Your task to perform on an android device: Go to network settings Image 0: 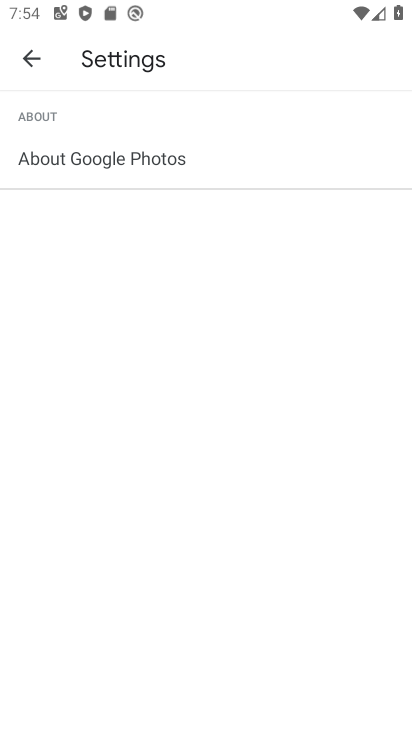
Step 0: press home button
Your task to perform on an android device: Go to network settings Image 1: 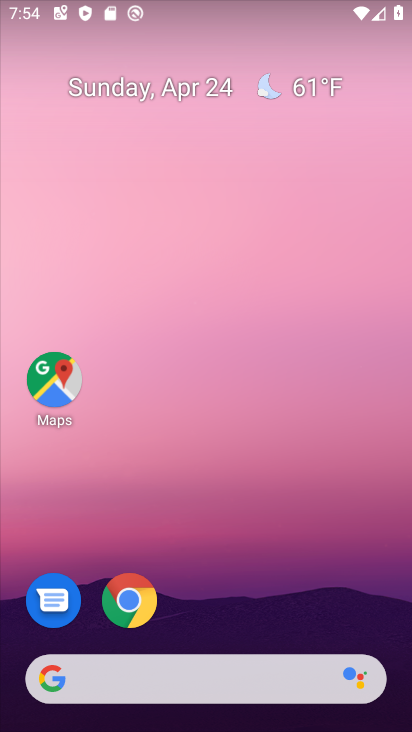
Step 1: drag from (214, 723) to (217, 81)
Your task to perform on an android device: Go to network settings Image 2: 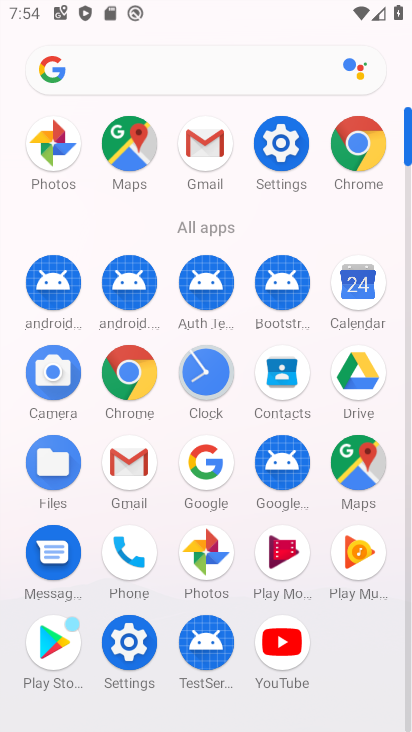
Step 2: click (274, 143)
Your task to perform on an android device: Go to network settings Image 3: 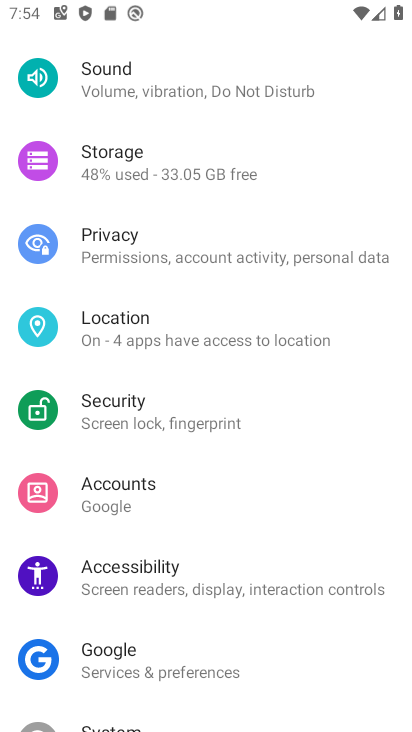
Step 3: drag from (250, 129) to (204, 528)
Your task to perform on an android device: Go to network settings Image 4: 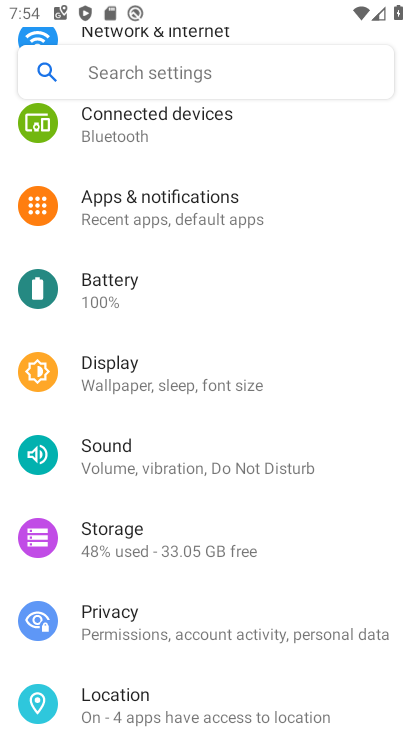
Step 4: drag from (187, 164) to (185, 536)
Your task to perform on an android device: Go to network settings Image 5: 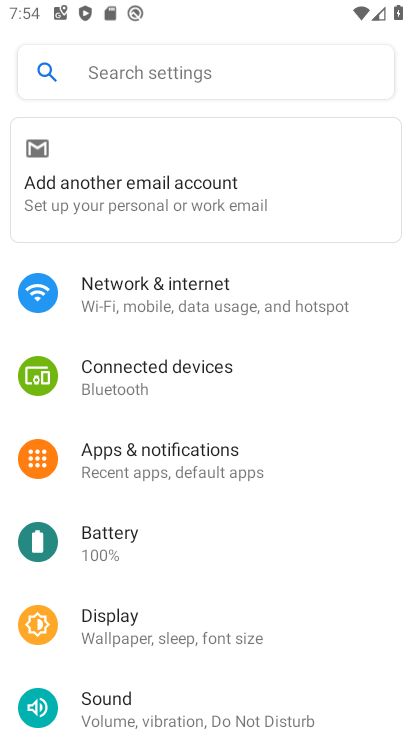
Step 5: click (102, 304)
Your task to perform on an android device: Go to network settings Image 6: 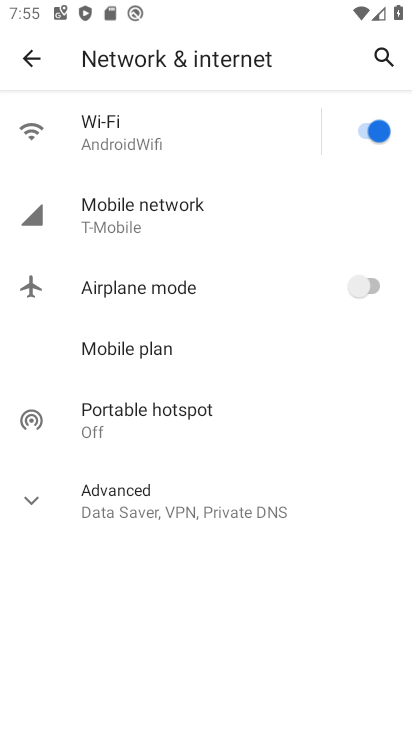
Step 6: task complete